Your task to perform on an android device: Open notification settings Image 0: 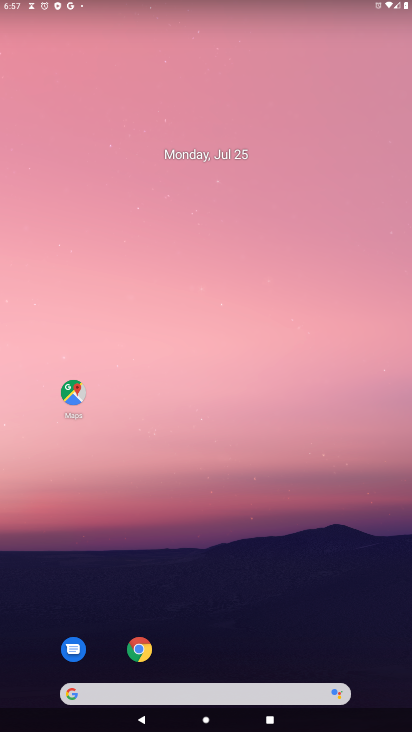
Step 0: drag from (277, 714) to (236, 73)
Your task to perform on an android device: Open notification settings Image 1: 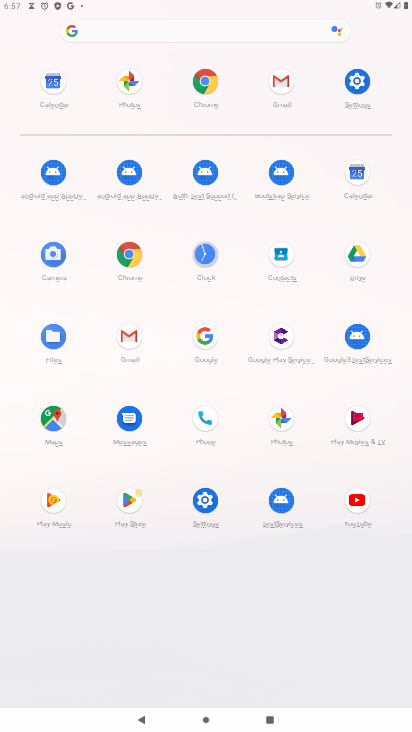
Step 1: click (361, 77)
Your task to perform on an android device: Open notification settings Image 2: 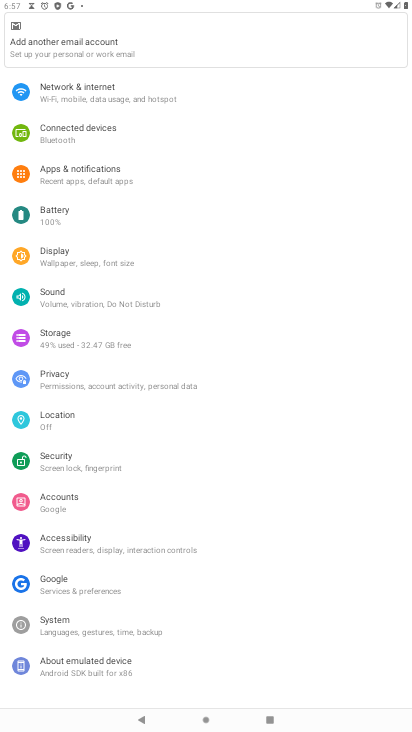
Step 2: click (57, 162)
Your task to perform on an android device: Open notification settings Image 3: 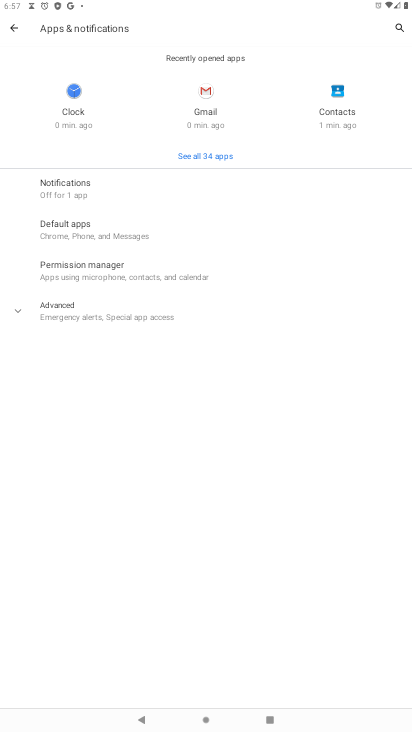
Step 3: task complete